Your task to perform on an android device: check the backup settings in the google photos Image 0: 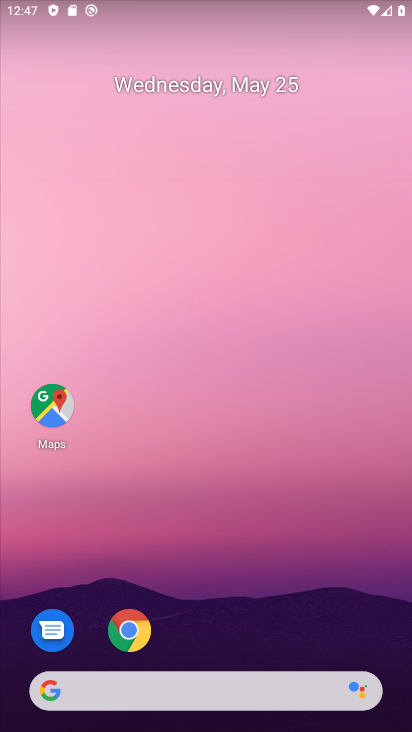
Step 0: drag from (244, 651) to (260, 197)
Your task to perform on an android device: check the backup settings in the google photos Image 1: 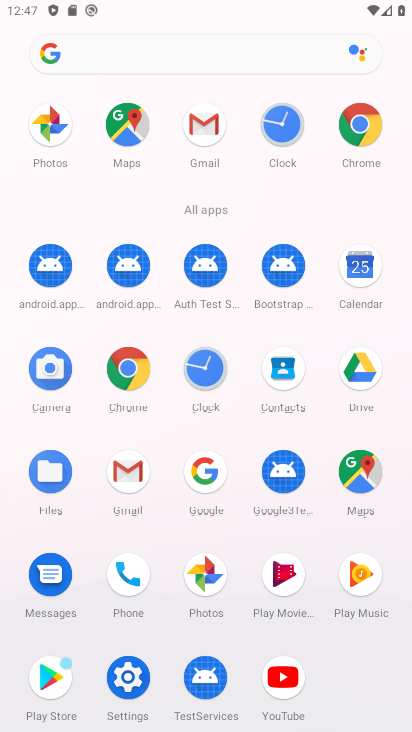
Step 1: click (198, 569)
Your task to perform on an android device: check the backup settings in the google photos Image 2: 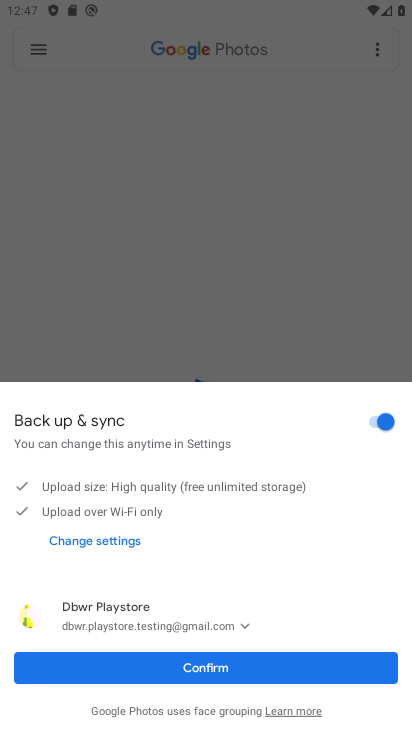
Step 2: click (208, 668)
Your task to perform on an android device: check the backup settings in the google photos Image 3: 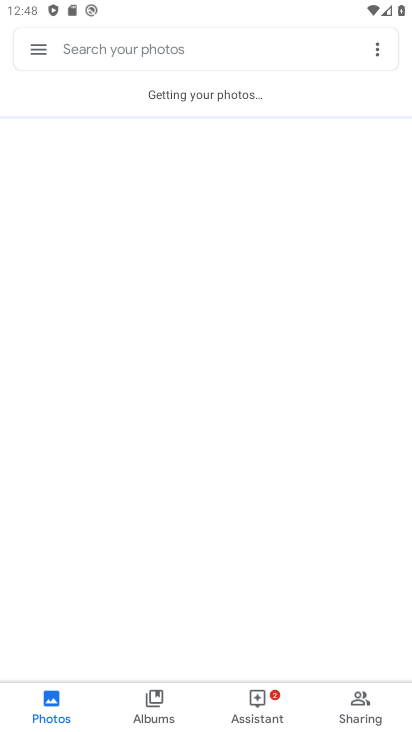
Step 3: click (25, 40)
Your task to perform on an android device: check the backup settings in the google photos Image 4: 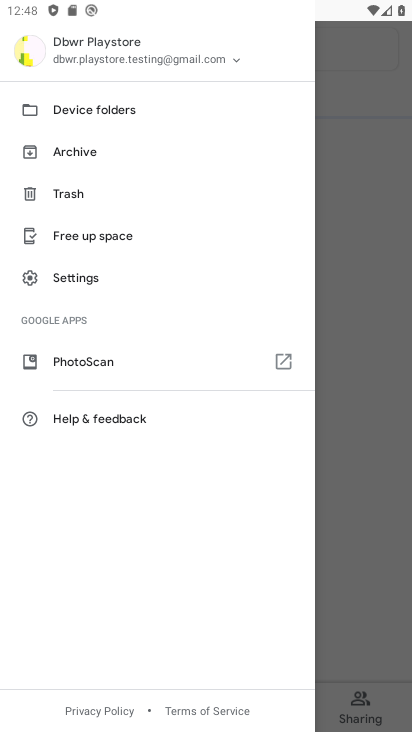
Step 4: click (90, 270)
Your task to perform on an android device: check the backup settings in the google photos Image 5: 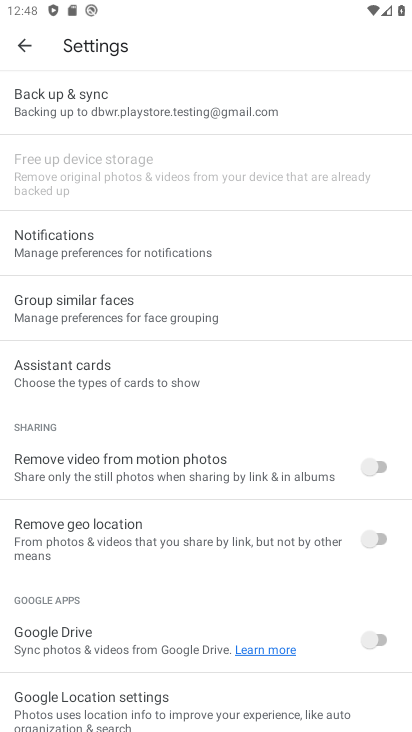
Step 5: click (96, 91)
Your task to perform on an android device: check the backup settings in the google photos Image 6: 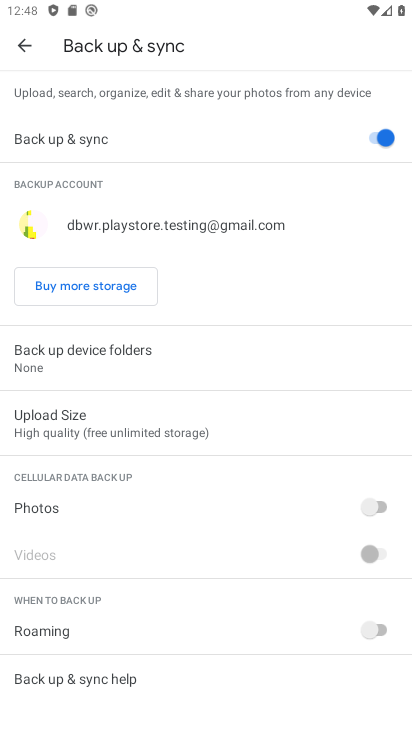
Step 6: task complete